Your task to perform on an android device: Search for vegetarian restaurants on Maps Image 0: 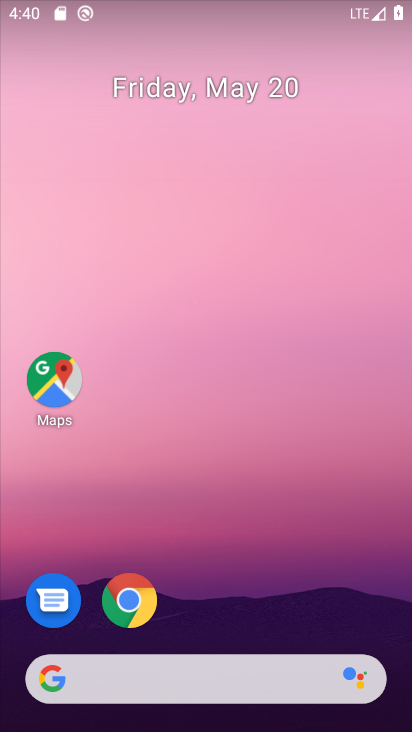
Step 0: click (64, 372)
Your task to perform on an android device: Search for vegetarian restaurants on Maps Image 1: 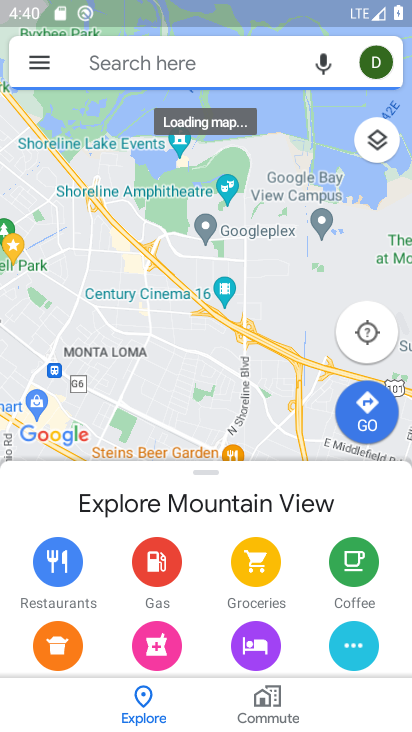
Step 1: click (170, 62)
Your task to perform on an android device: Search for vegetarian restaurants on Maps Image 2: 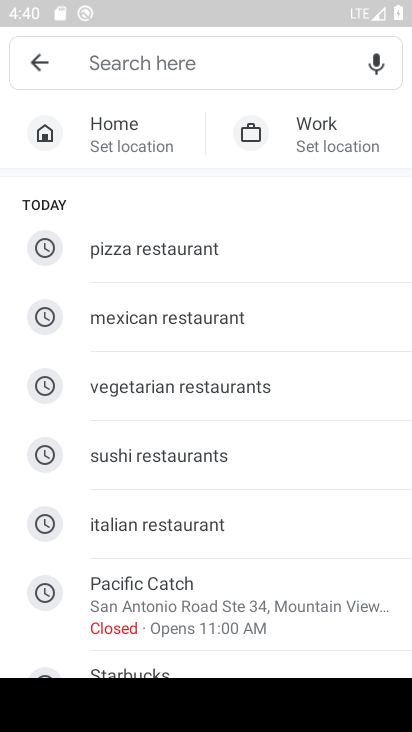
Step 2: click (179, 403)
Your task to perform on an android device: Search for vegetarian restaurants on Maps Image 3: 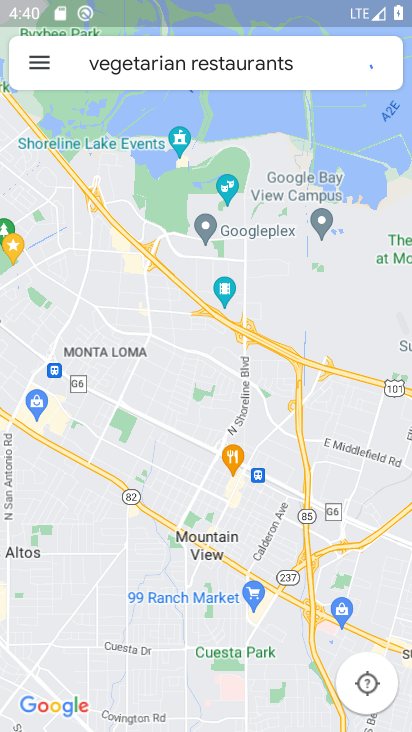
Step 3: task complete